Your task to perform on an android device: turn on showing notifications on the lock screen Image 0: 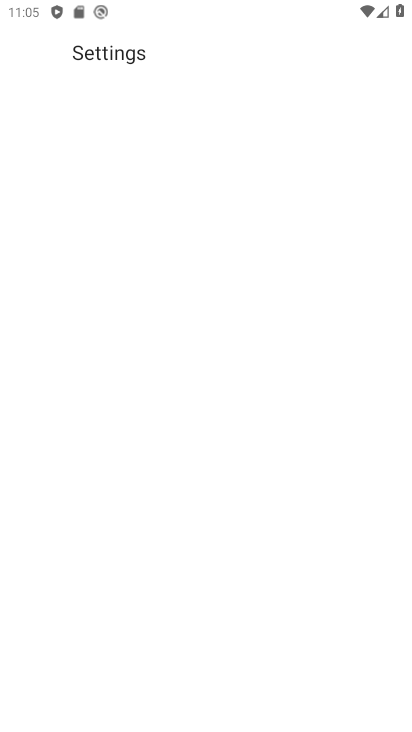
Step 0: drag from (194, 632) to (195, 259)
Your task to perform on an android device: turn on showing notifications on the lock screen Image 1: 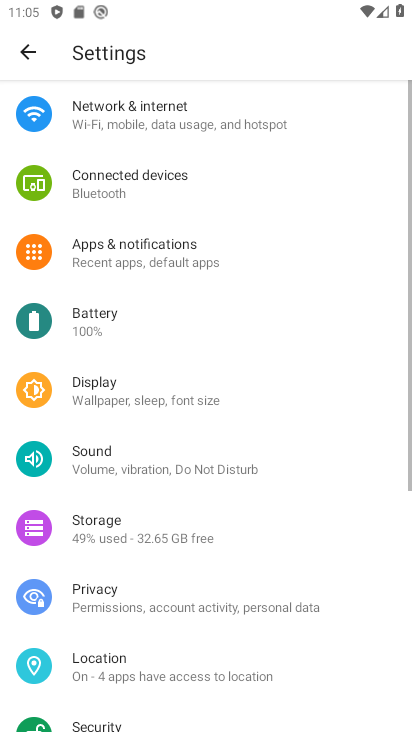
Step 1: drag from (192, 363) to (200, 314)
Your task to perform on an android device: turn on showing notifications on the lock screen Image 2: 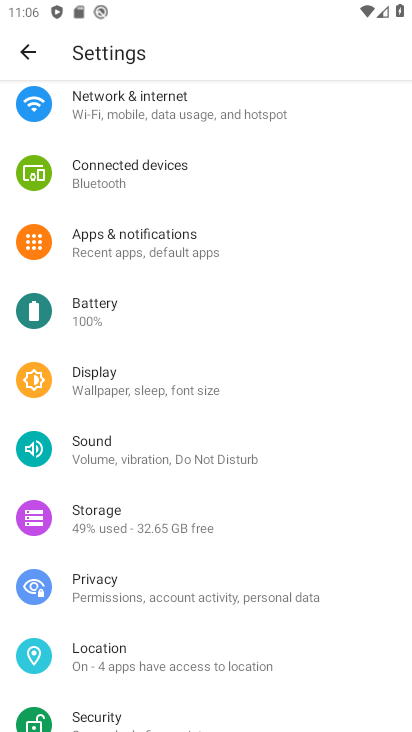
Step 2: click (221, 258)
Your task to perform on an android device: turn on showing notifications on the lock screen Image 3: 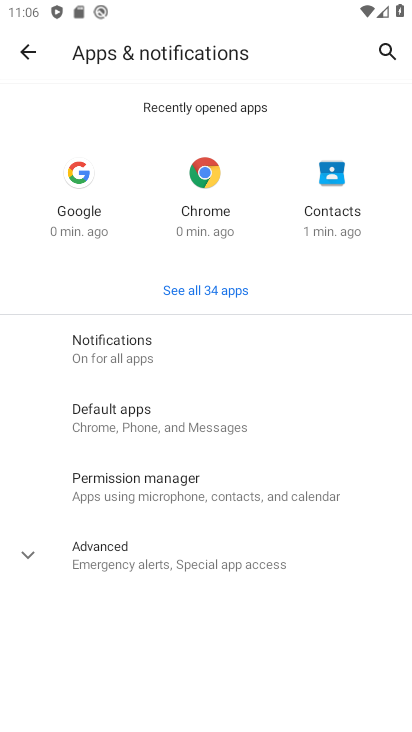
Step 3: click (232, 361)
Your task to perform on an android device: turn on showing notifications on the lock screen Image 4: 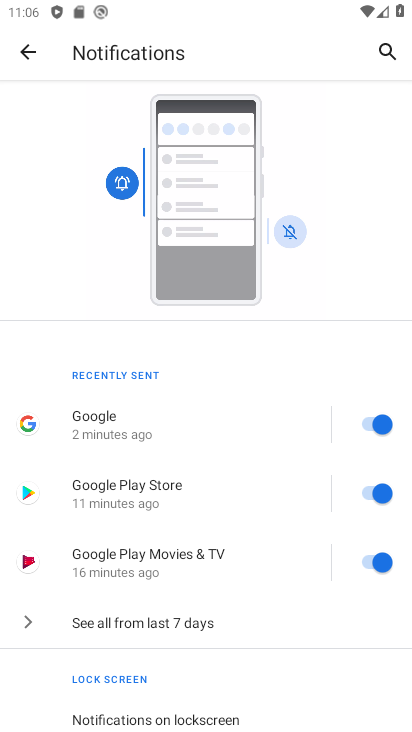
Step 4: drag from (162, 587) to (194, 275)
Your task to perform on an android device: turn on showing notifications on the lock screen Image 5: 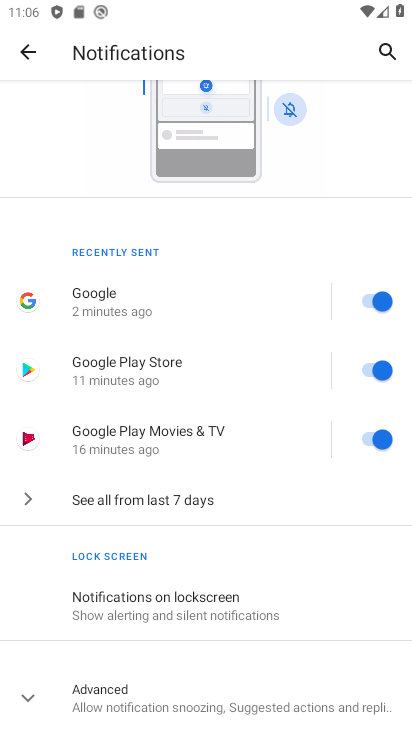
Step 5: click (194, 610)
Your task to perform on an android device: turn on showing notifications on the lock screen Image 6: 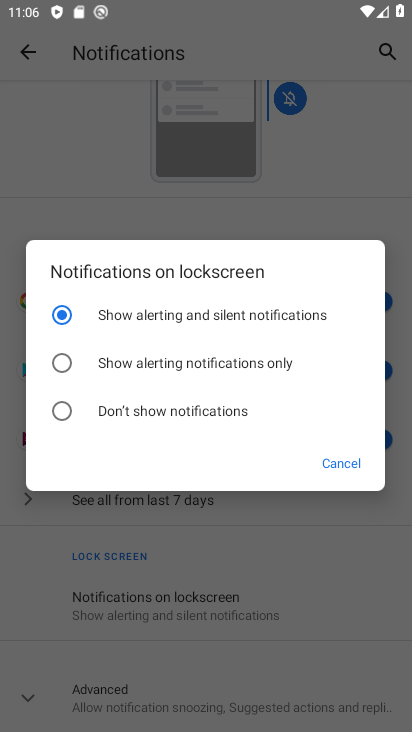
Step 6: click (223, 369)
Your task to perform on an android device: turn on showing notifications on the lock screen Image 7: 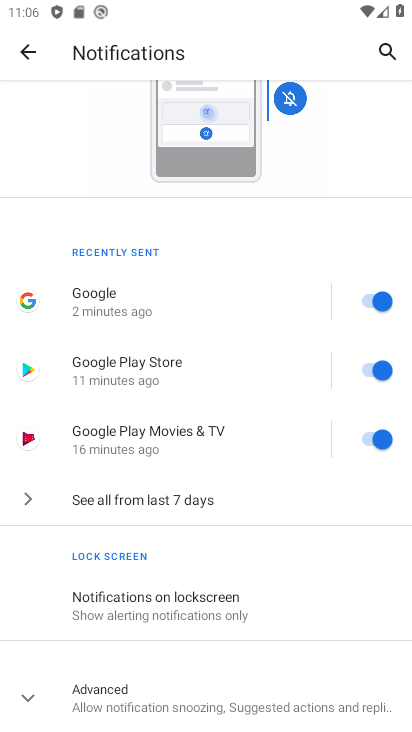
Step 7: task complete